Your task to perform on an android device: set default search engine in the chrome app Image 0: 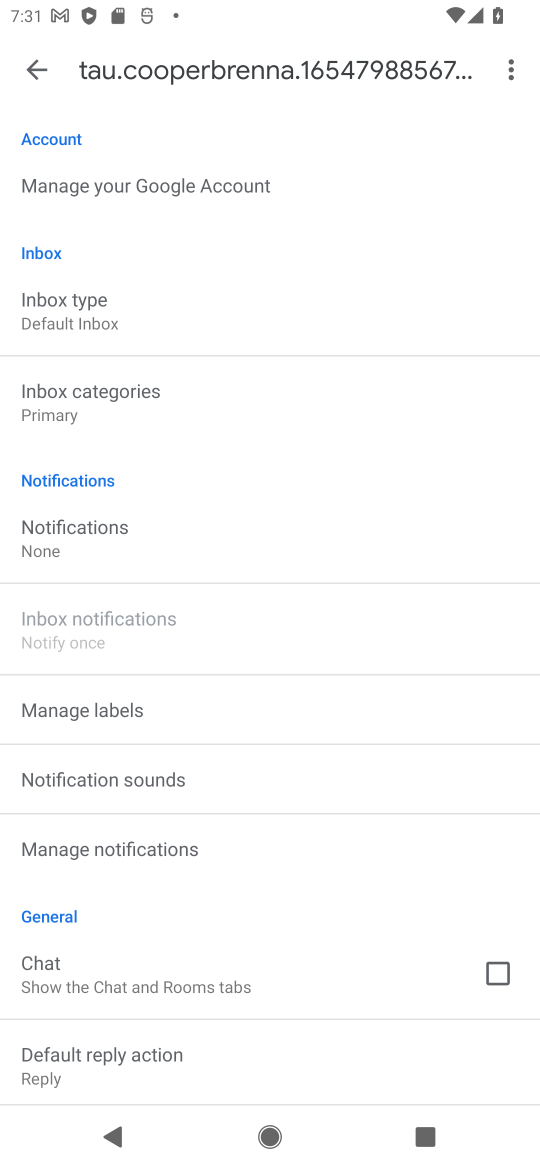
Step 0: press home button
Your task to perform on an android device: set default search engine in the chrome app Image 1: 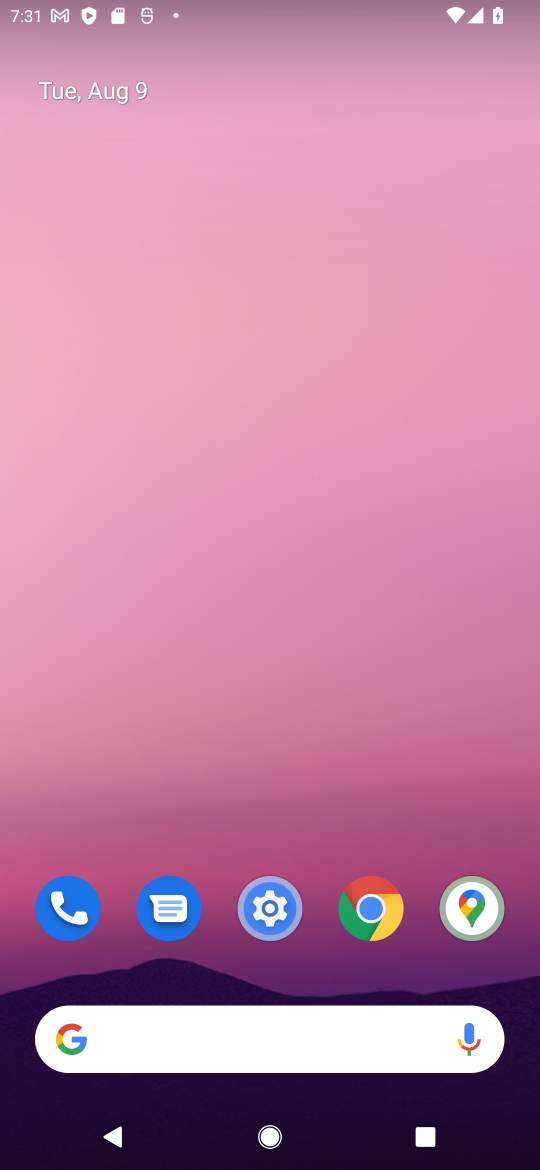
Step 1: click (380, 917)
Your task to perform on an android device: set default search engine in the chrome app Image 2: 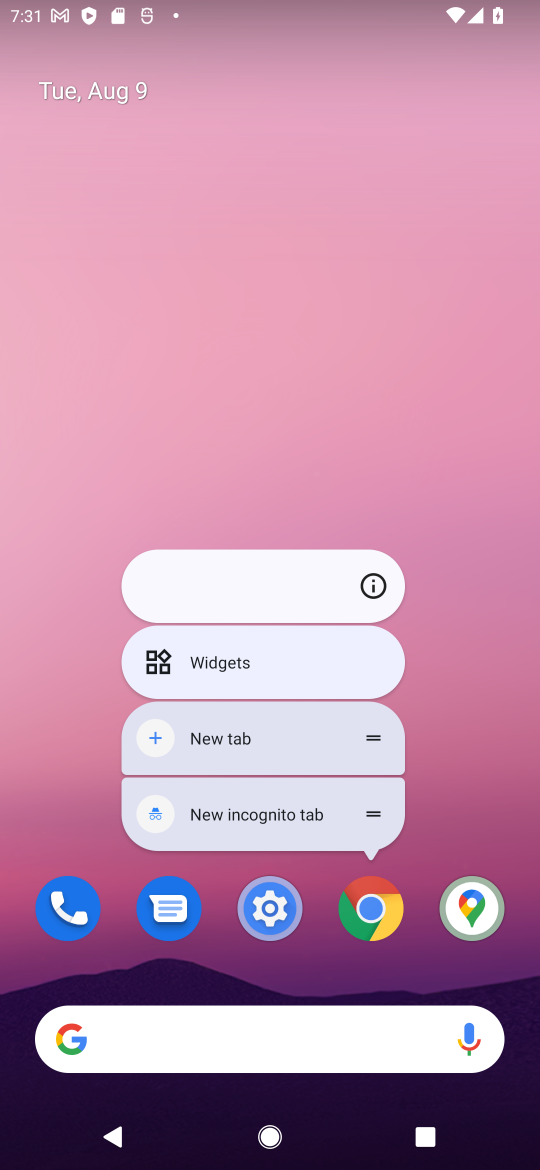
Step 2: click (379, 923)
Your task to perform on an android device: set default search engine in the chrome app Image 3: 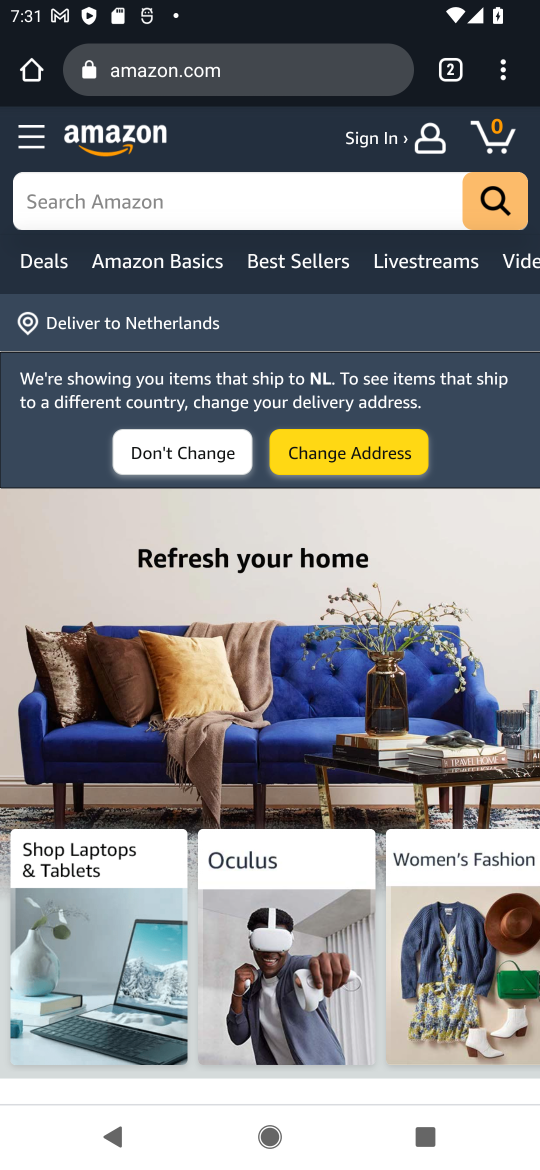
Step 3: click (505, 84)
Your task to perform on an android device: set default search engine in the chrome app Image 4: 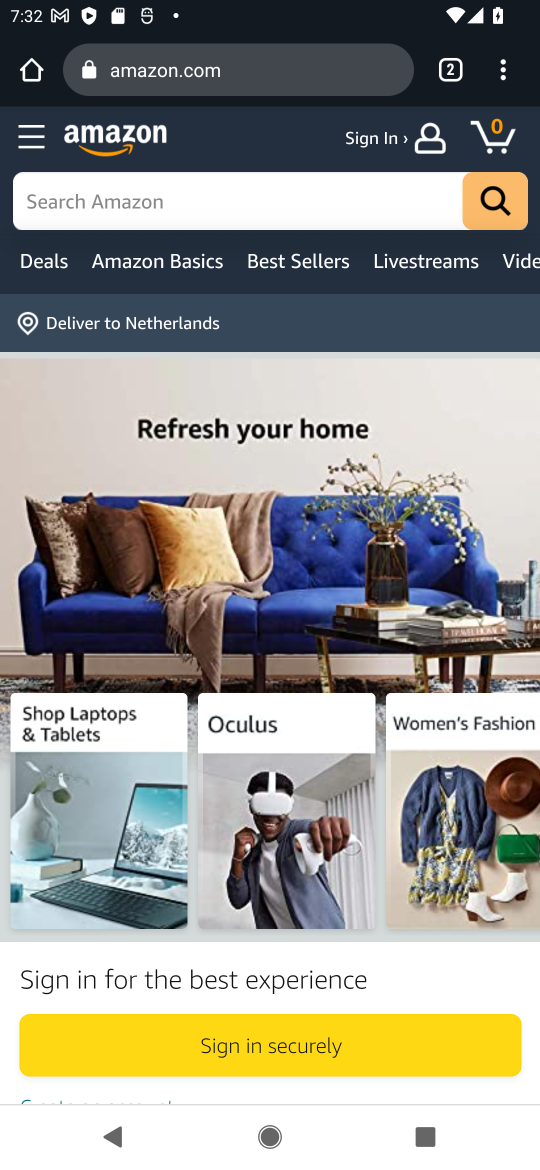
Step 4: drag from (507, 87) to (305, 954)
Your task to perform on an android device: set default search engine in the chrome app Image 5: 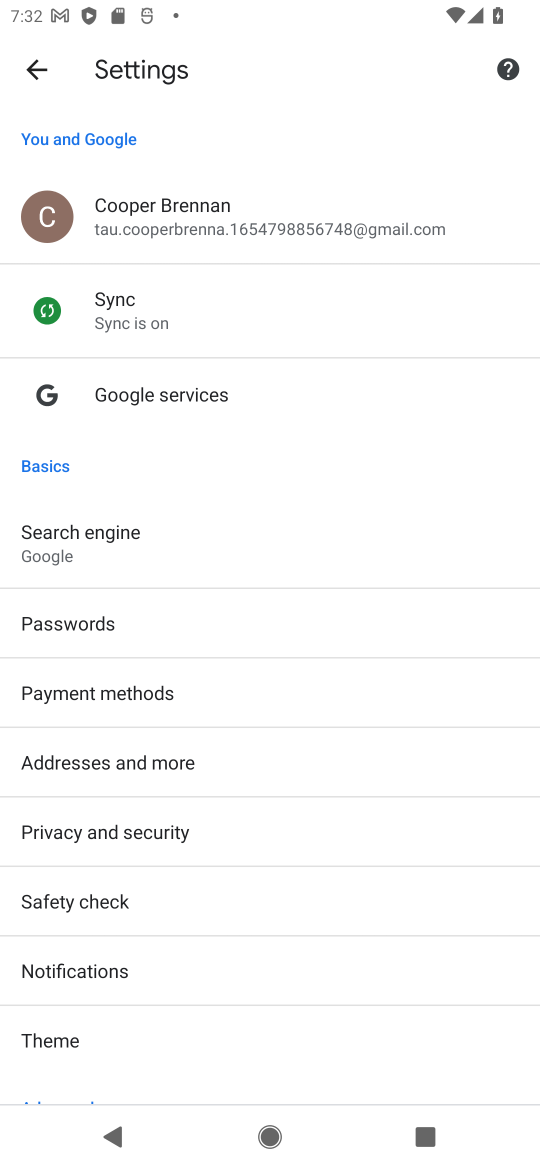
Step 5: click (71, 540)
Your task to perform on an android device: set default search engine in the chrome app Image 6: 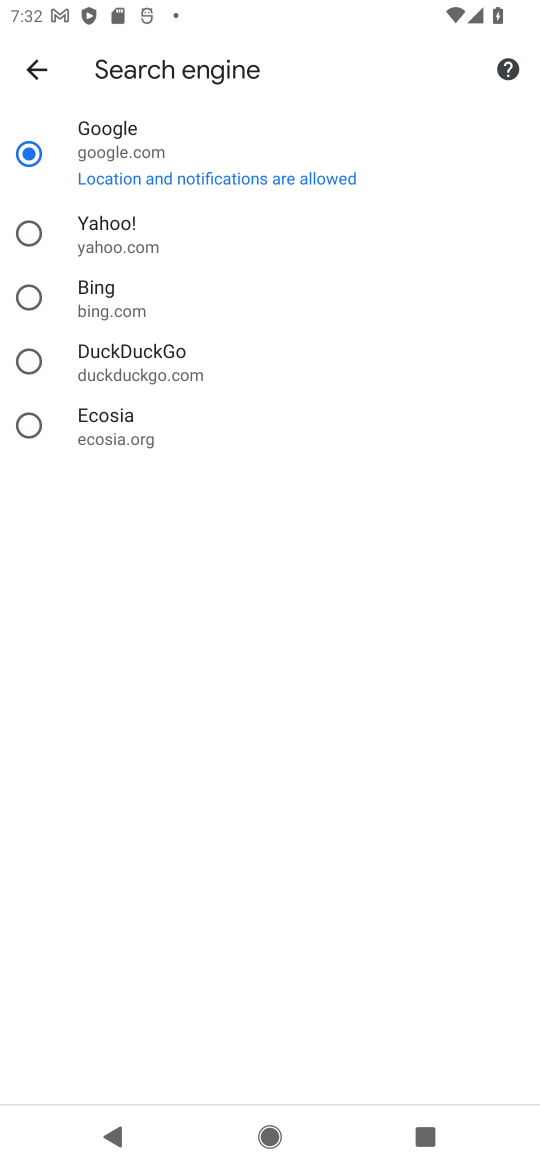
Step 6: click (42, 304)
Your task to perform on an android device: set default search engine in the chrome app Image 7: 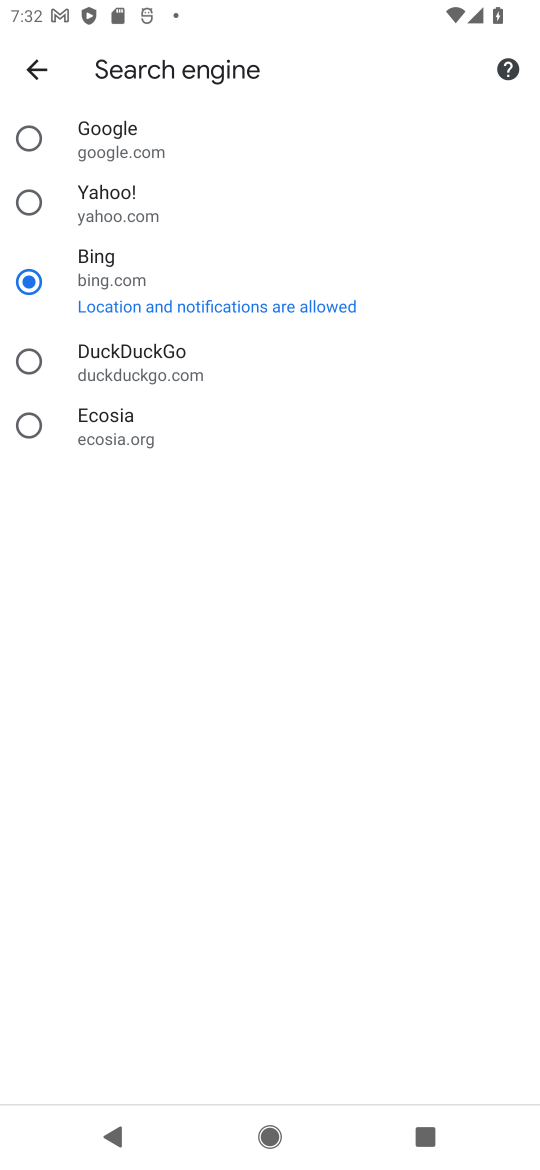
Step 7: task complete